Your task to perform on an android device: check storage Image 0: 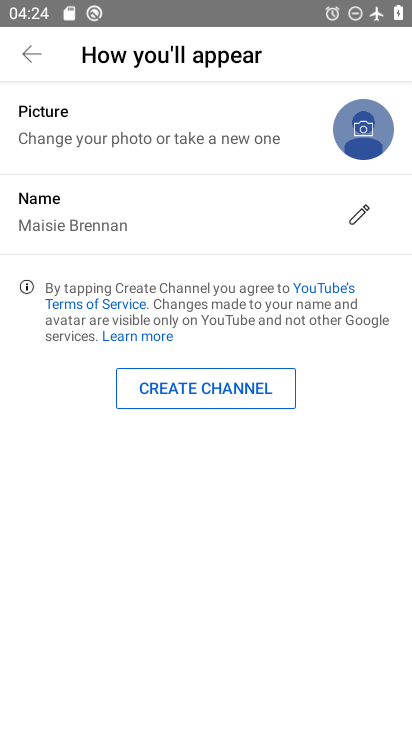
Step 0: press home button
Your task to perform on an android device: check storage Image 1: 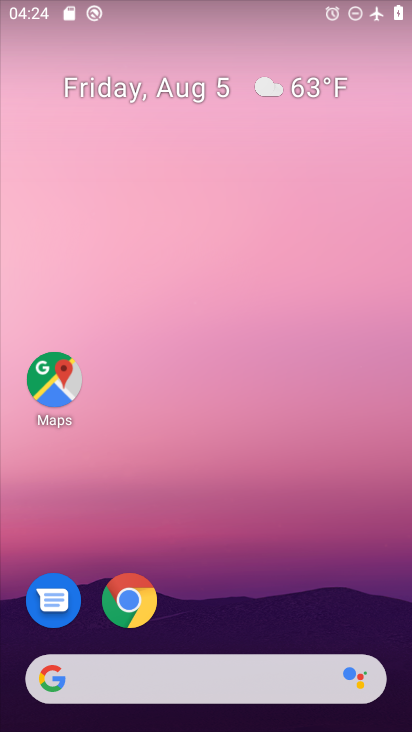
Step 1: drag from (200, 683) to (260, 69)
Your task to perform on an android device: check storage Image 2: 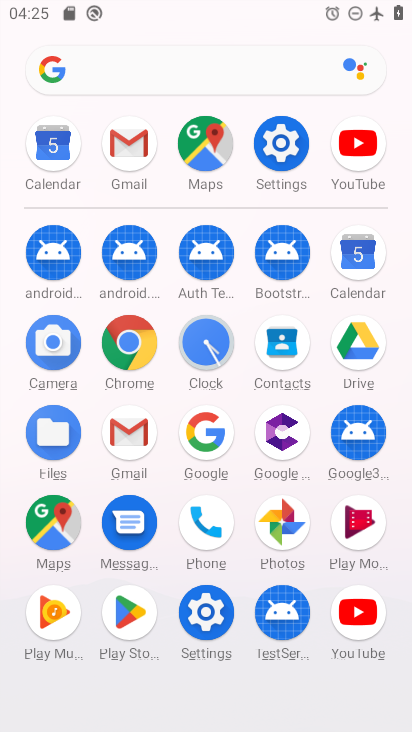
Step 2: click (208, 613)
Your task to perform on an android device: check storage Image 3: 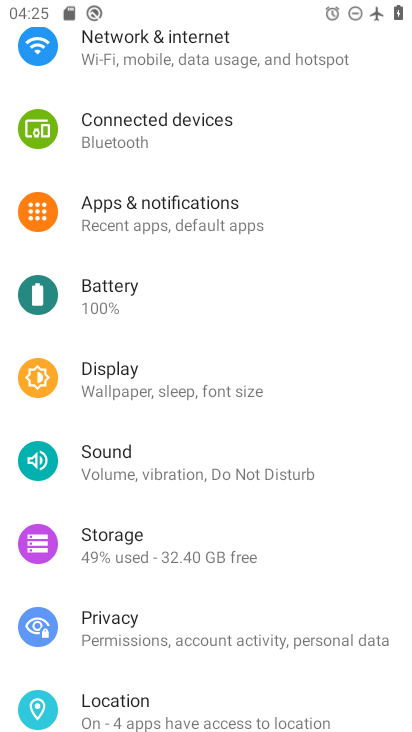
Step 3: drag from (152, 666) to (153, 481)
Your task to perform on an android device: check storage Image 4: 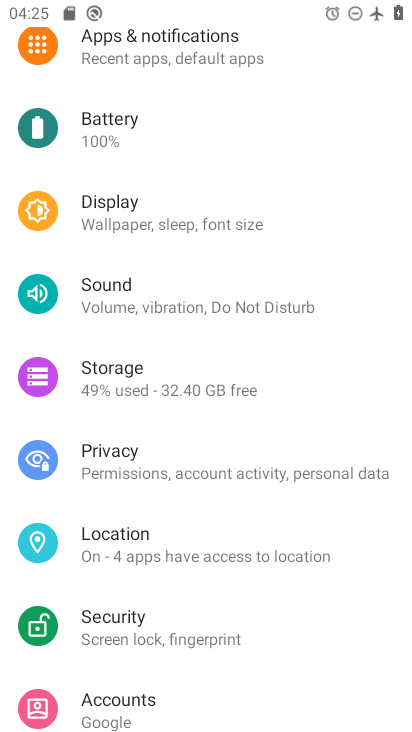
Step 4: drag from (144, 284) to (166, 378)
Your task to perform on an android device: check storage Image 5: 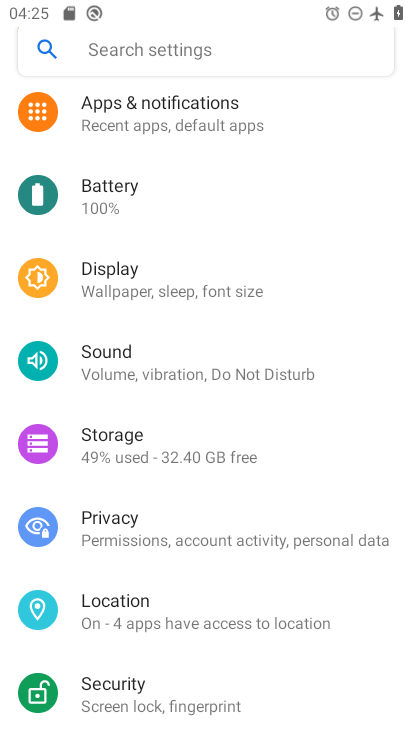
Step 5: click (124, 463)
Your task to perform on an android device: check storage Image 6: 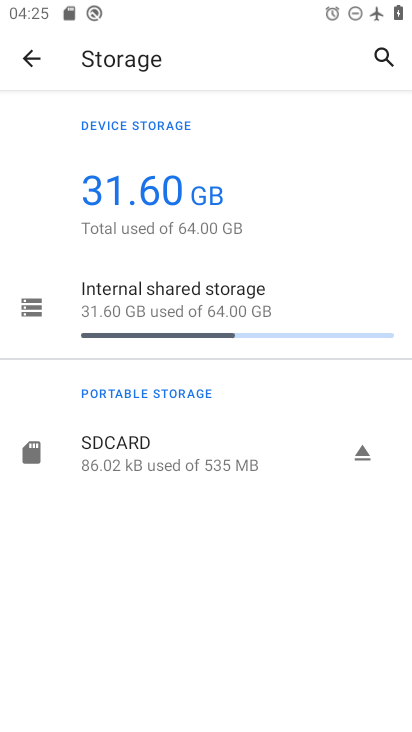
Step 6: task complete